Your task to perform on an android device: Search for "corsair k70" on amazon.com, select the first entry, add it to the cart, then select checkout. Image 0: 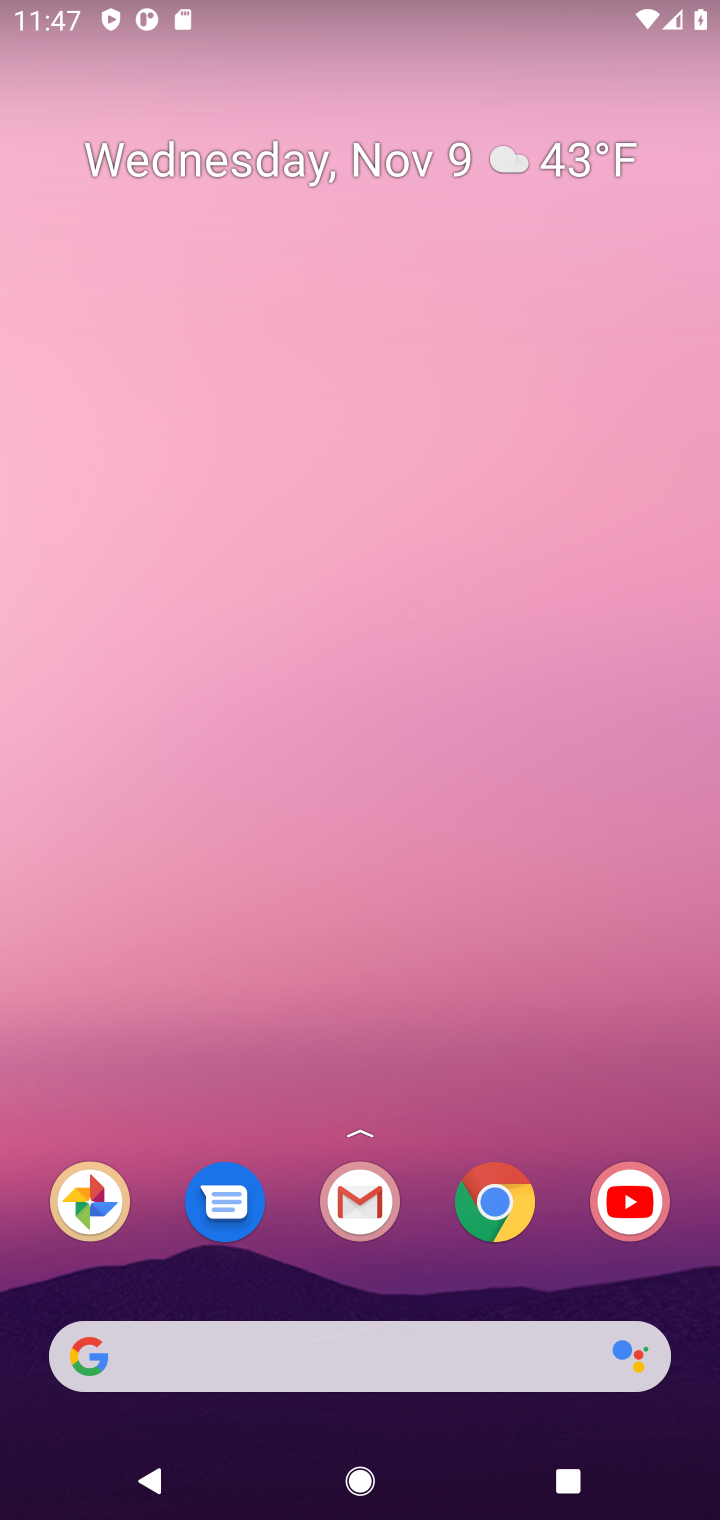
Step 0: click (483, 1194)
Your task to perform on an android device: Search for "corsair k70" on amazon.com, select the first entry, add it to the cart, then select checkout. Image 1: 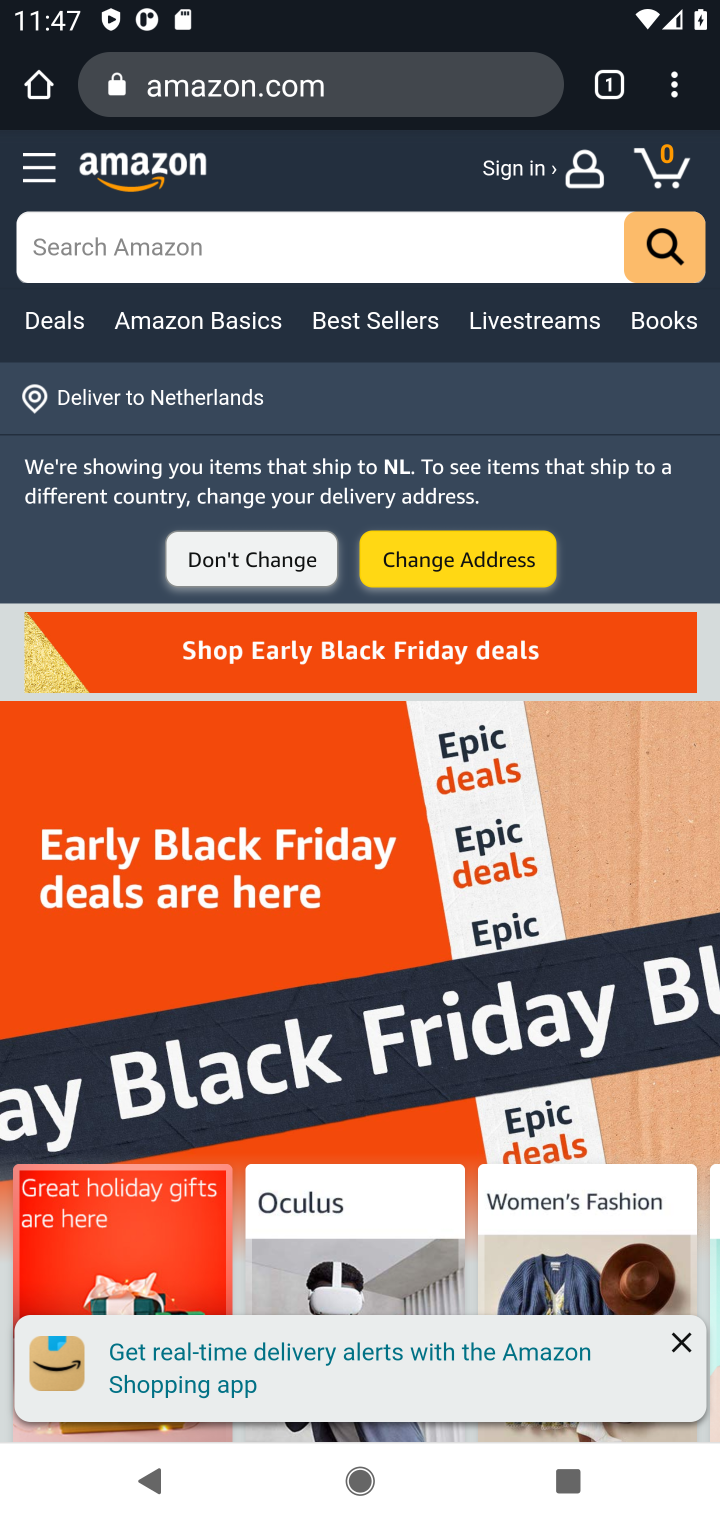
Step 1: click (389, 259)
Your task to perform on an android device: Search for "corsair k70" on amazon.com, select the first entry, add it to the cart, then select checkout. Image 2: 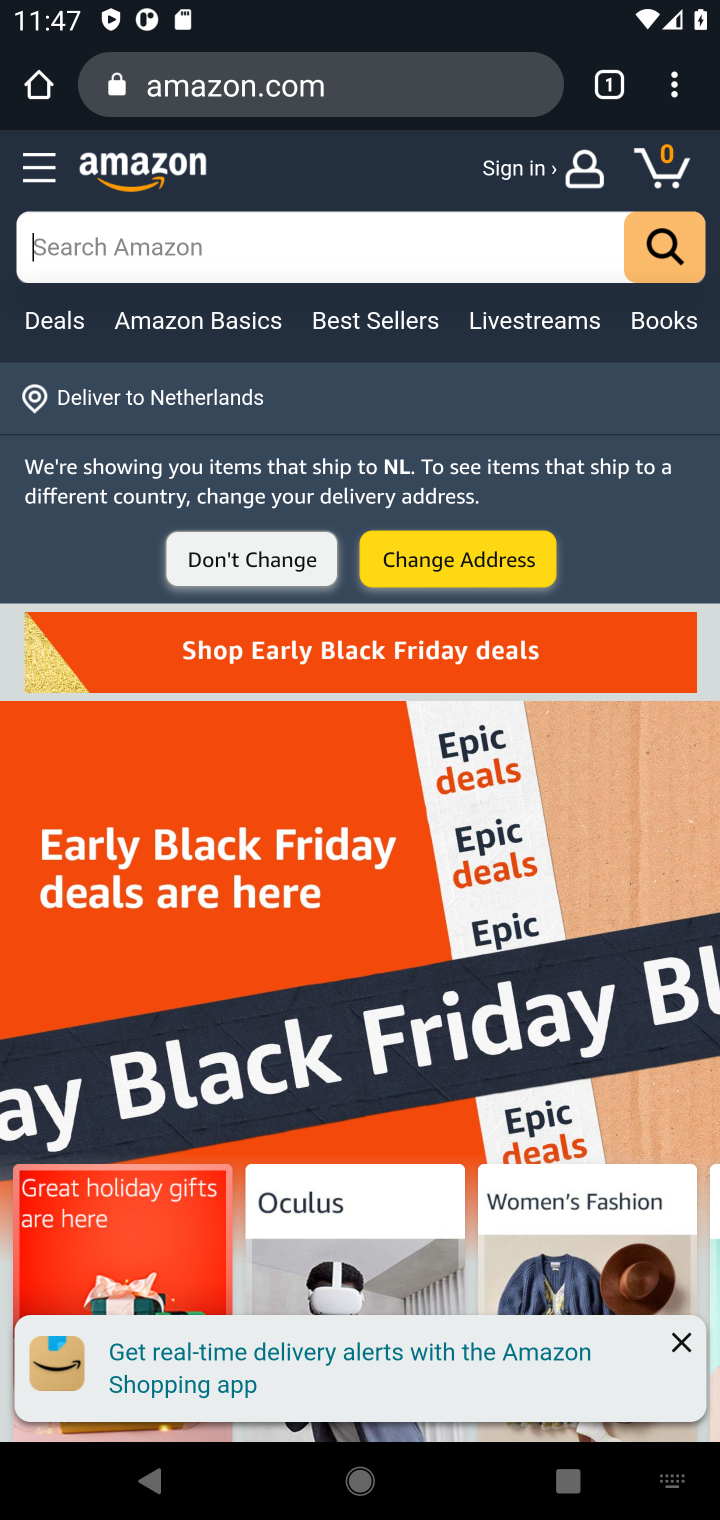
Step 2: press enter
Your task to perform on an android device: Search for "corsair k70" on amazon.com, select the first entry, add it to the cart, then select checkout. Image 3: 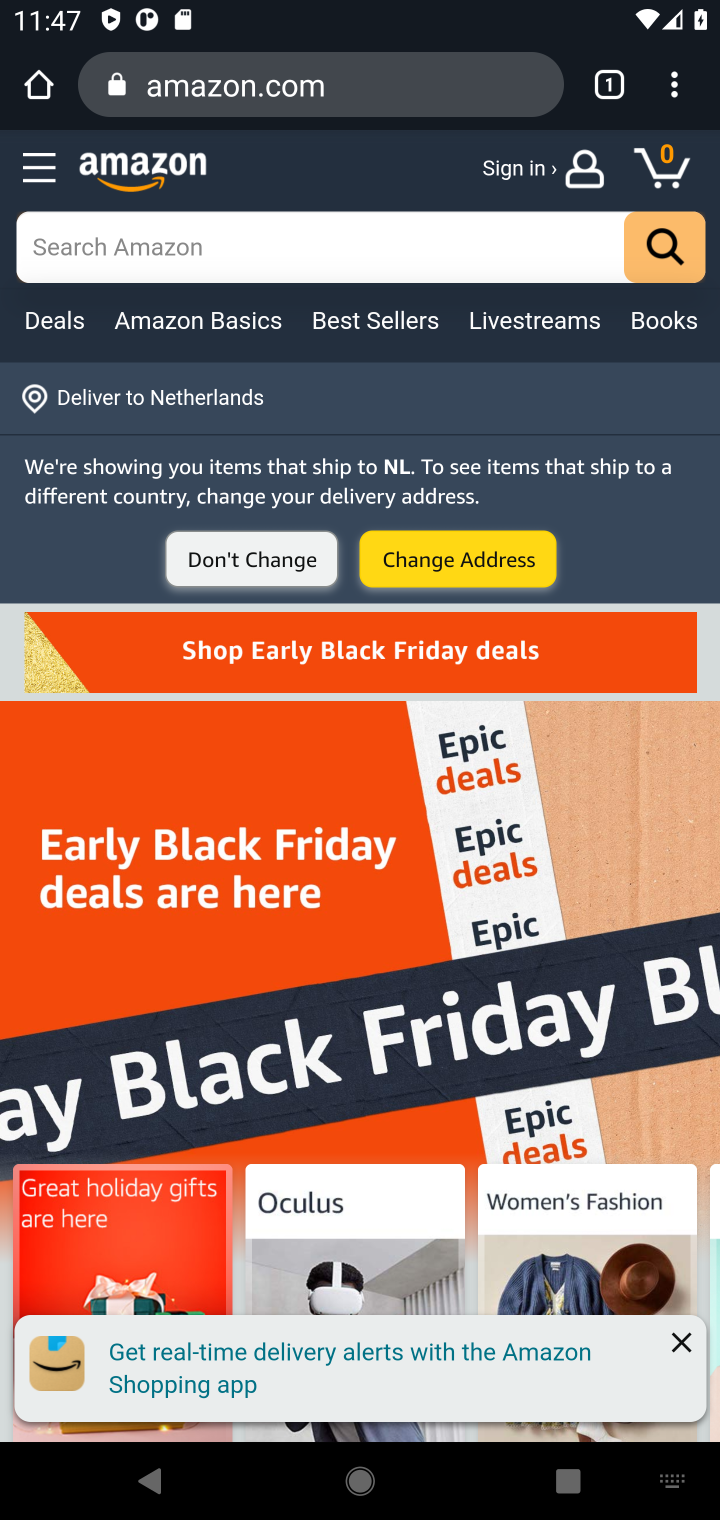
Step 3: type "corsair k70"
Your task to perform on an android device: Search for "corsair k70" on amazon.com, select the first entry, add it to the cart, then select checkout. Image 4: 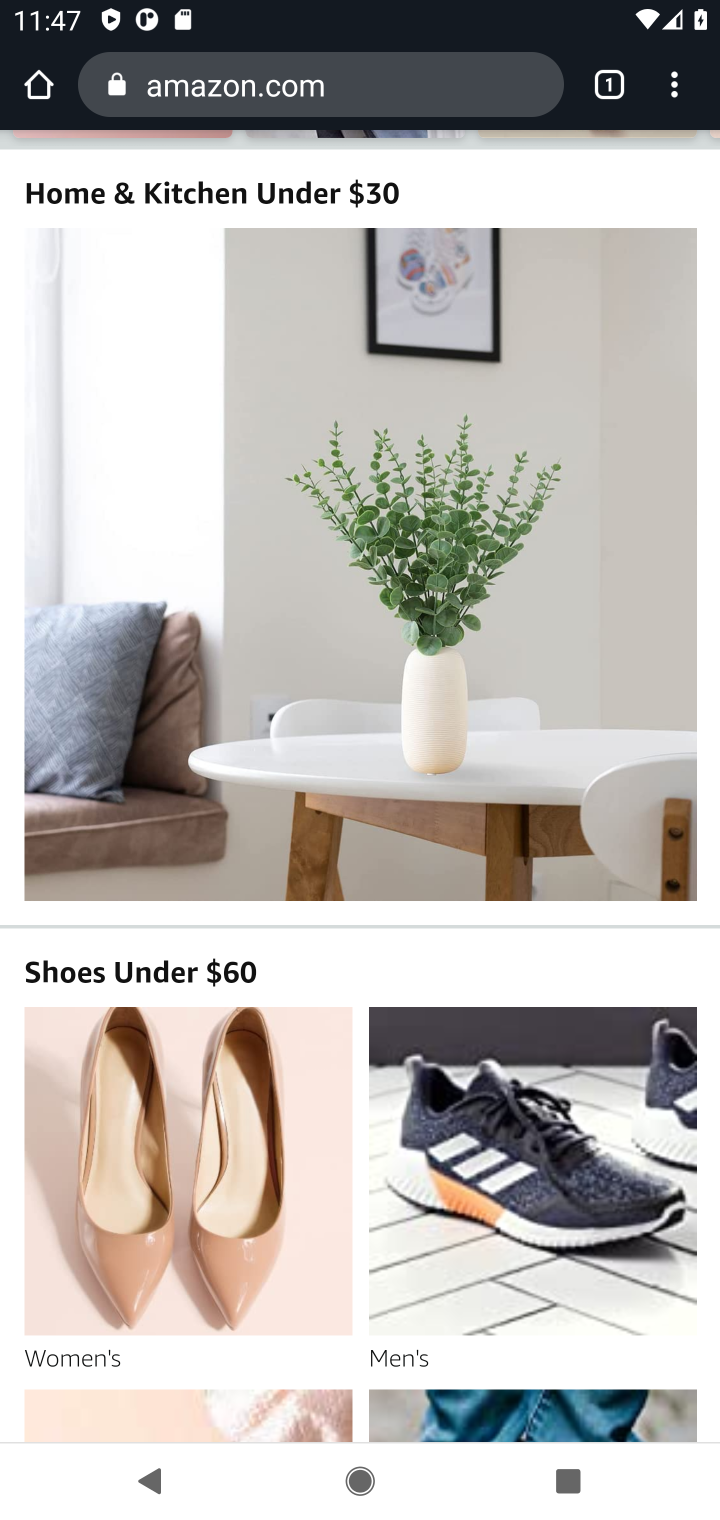
Step 4: click (578, 1005)
Your task to perform on an android device: Search for "corsair k70" on amazon.com, select the first entry, add it to the cart, then select checkout. Image 5: 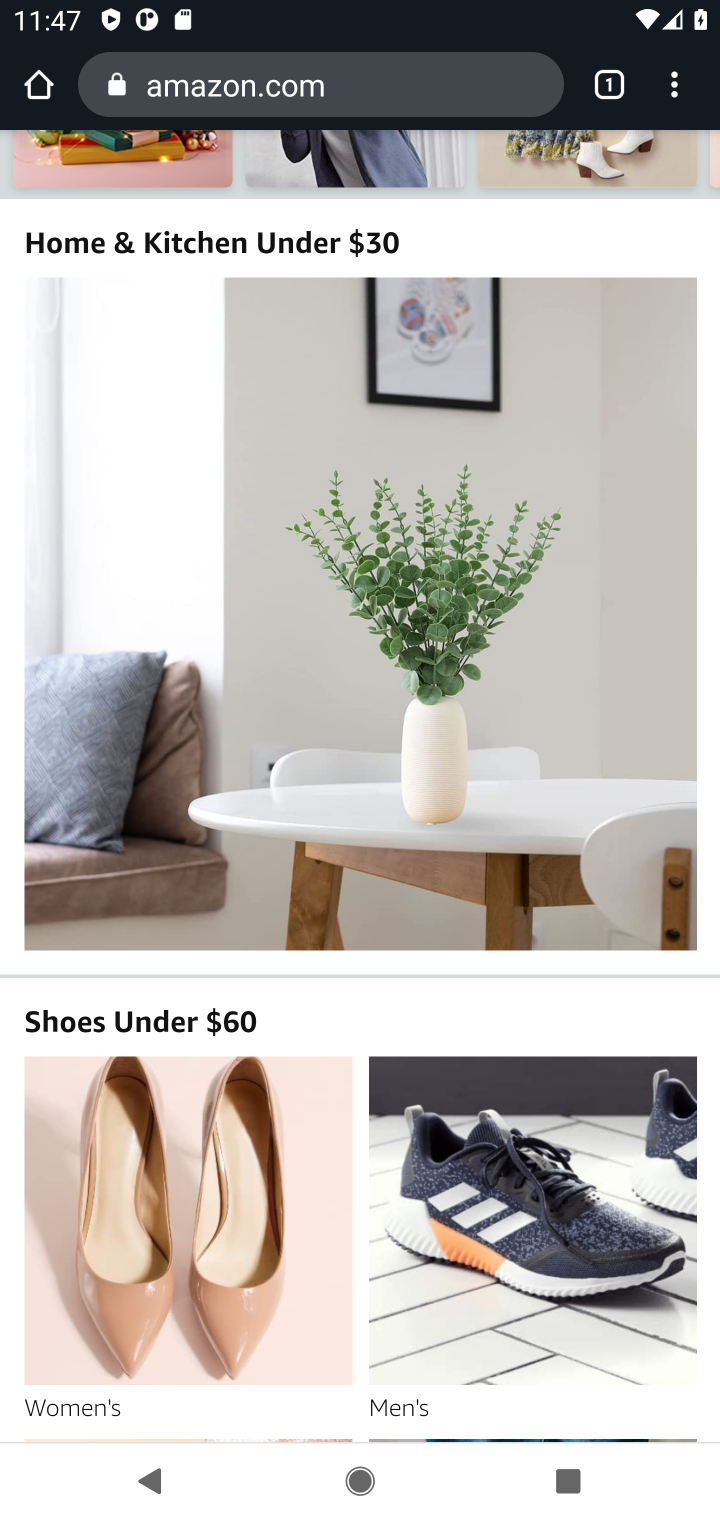
Step 5: drag from (597, 698) to (658, 1062)
Your task to perform on an android device: Search for "corsair k70" on amazon.com, select the first entry, add it to the cart, then select checkout. Image 6: 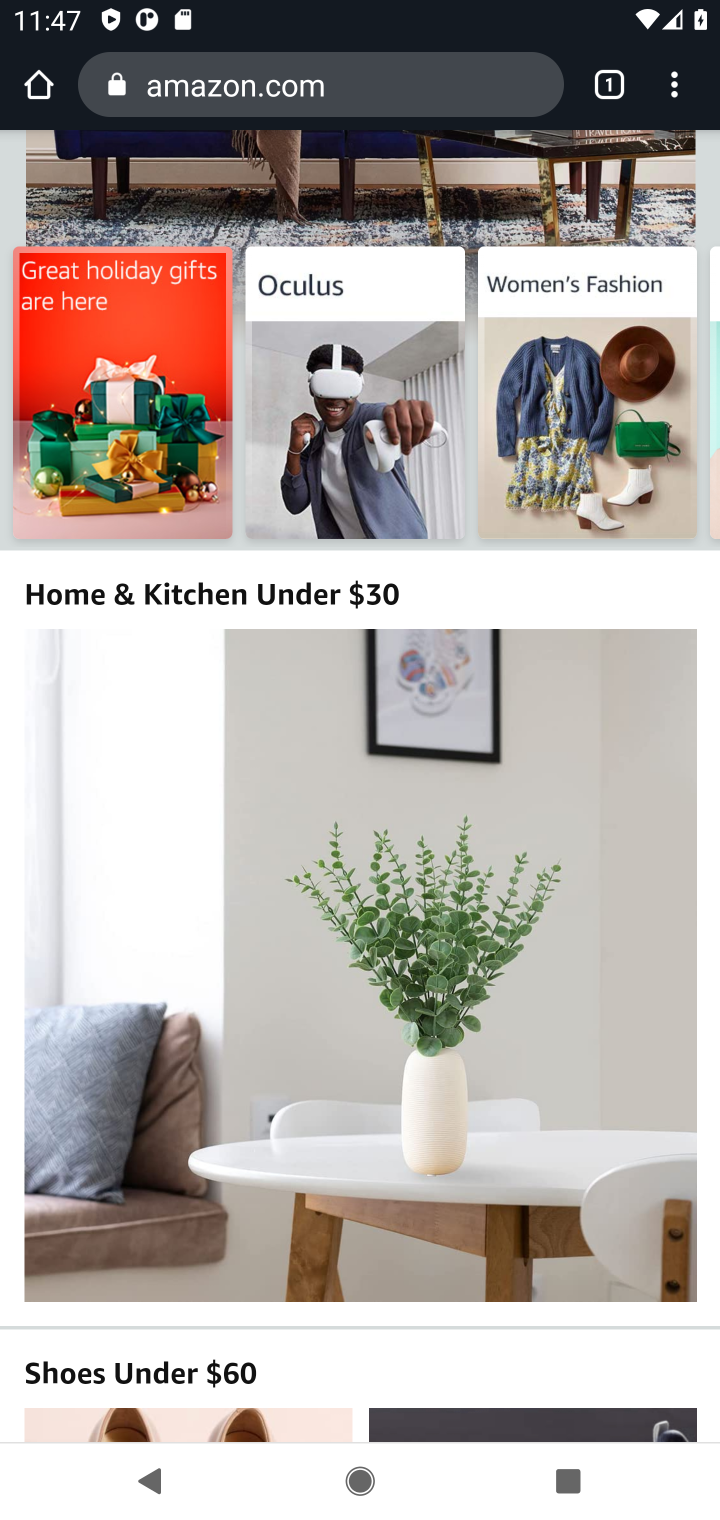
Step 6: drag from (478, 741) to (501, 1155)
Your task to perform on an android device: Search for "corsair k70" on amazon.com, select the first entry, add it to the cart, then select checkout. Image 7: 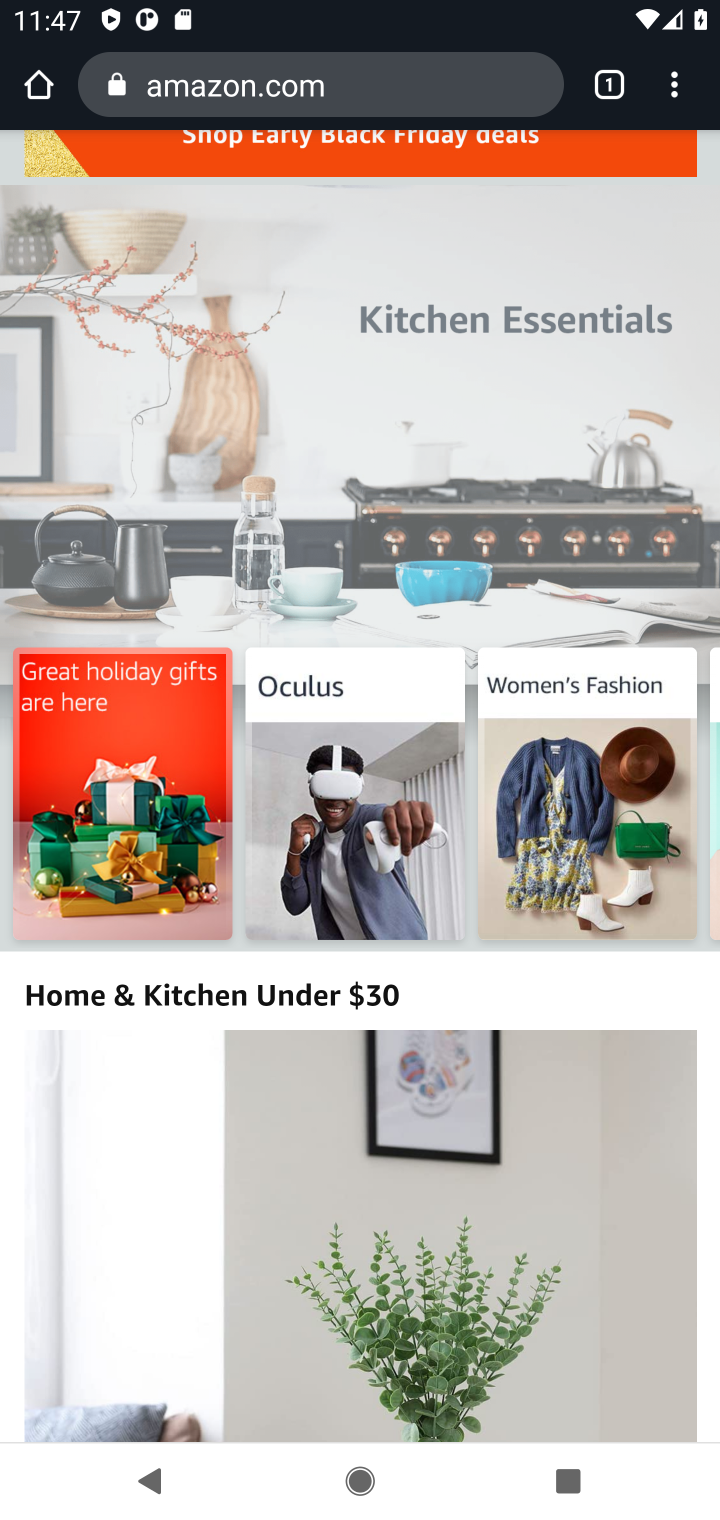
Step 7: drag from (524, 182) to (489, 1216)
Your task to perform on an android device: Search for "corsair k70" on amazon.com, select the first entry, add it to the cart, then select checkout. Image 8: 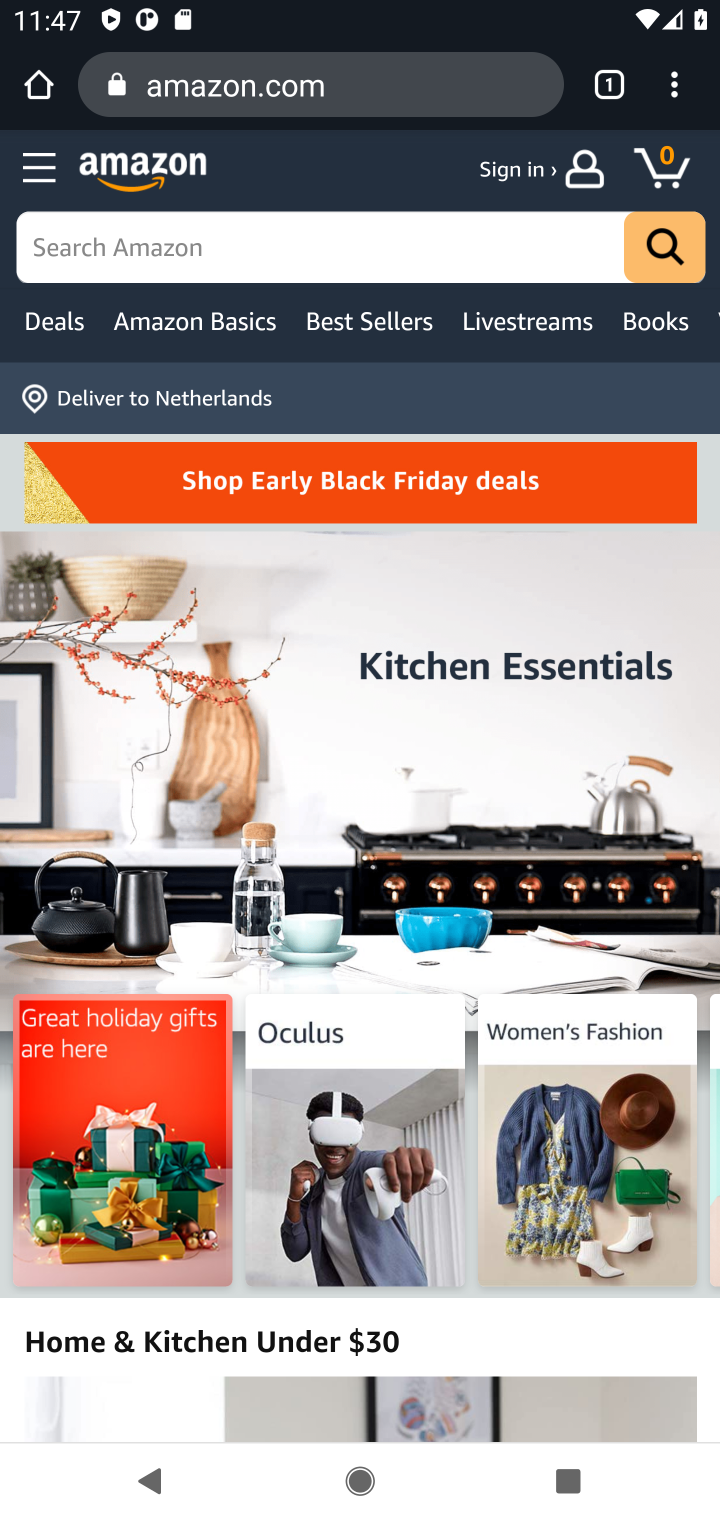
Step 8: click (417, 260)
Your task to perform on an android device: Search for "corsair k70" on amazon.com, select the first entry, add it to the cart, then select checkout. Image 9: 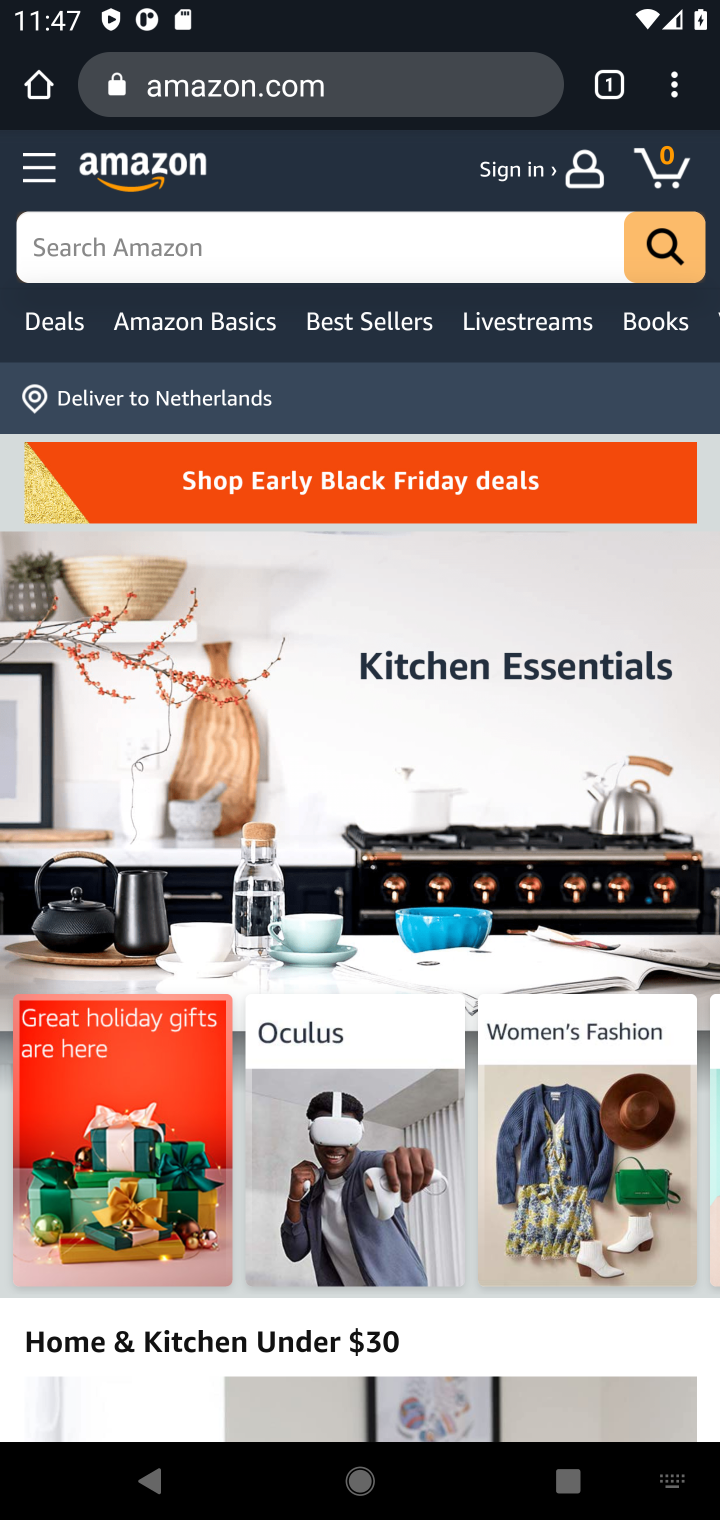
Step 9: press enter
Your task to perform on an android device: Search for "corsair k70" on amazon.com, select the first entry, add it to the cart, then select checkout. Image 10: 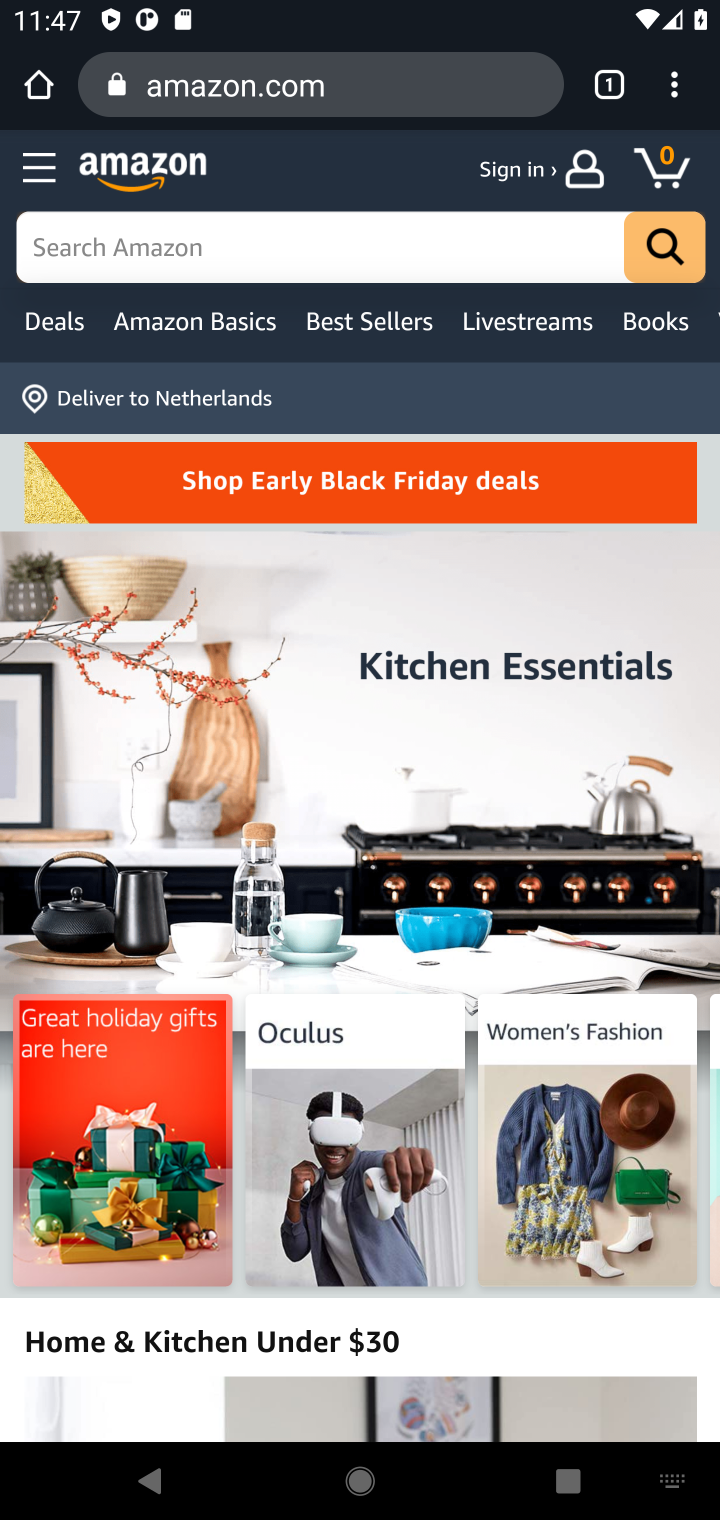
Step 10: type "corsair k70"
Your task to perform on an android device: Search for "corsair k70" on amazon.com, select the first entry, add it to the cart, then select checkout. Image 11: 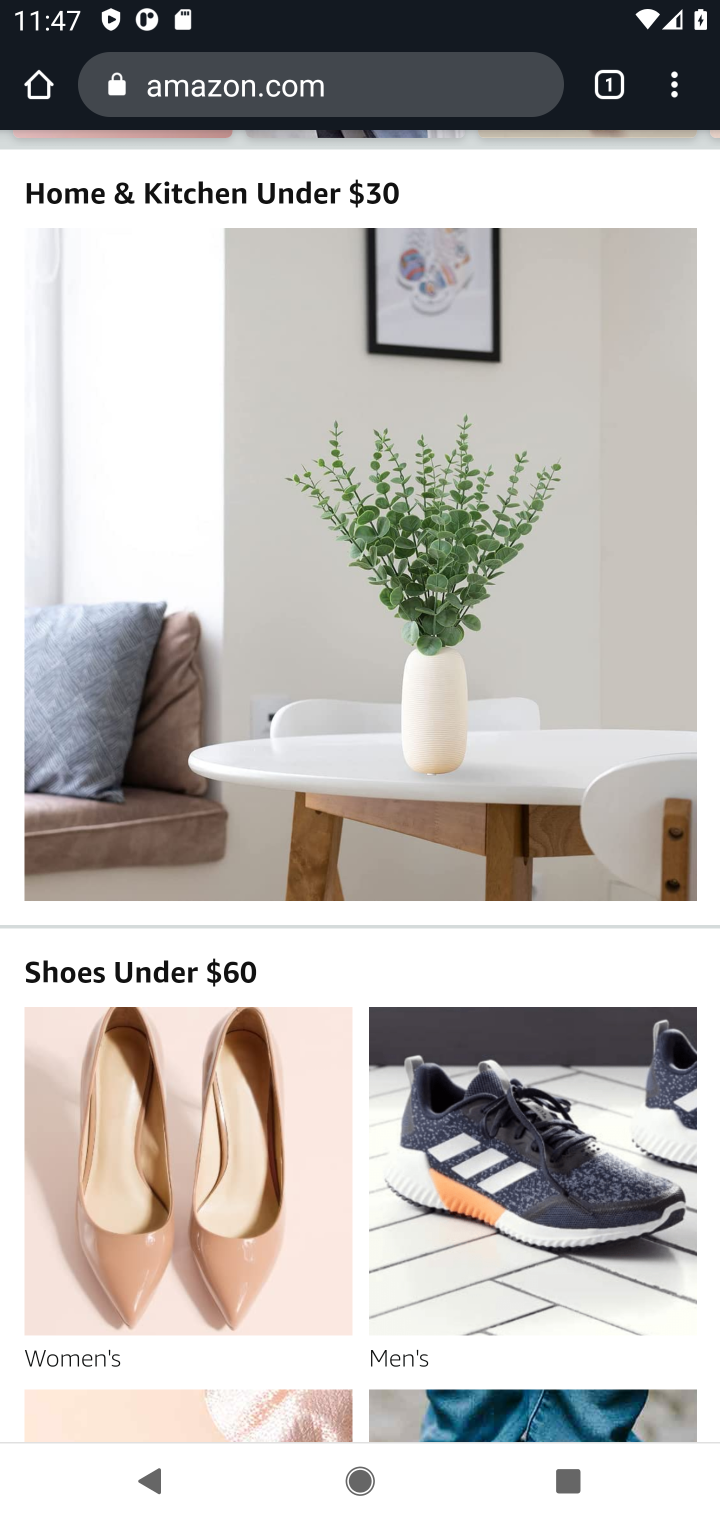
Step 11: drag from (447, 1213) to (447, 1334)
Your task to perform on an android device: Search for "corsair k70" on amazon.com, select the first entry, add it to the cart, then select checkout. Image 12: 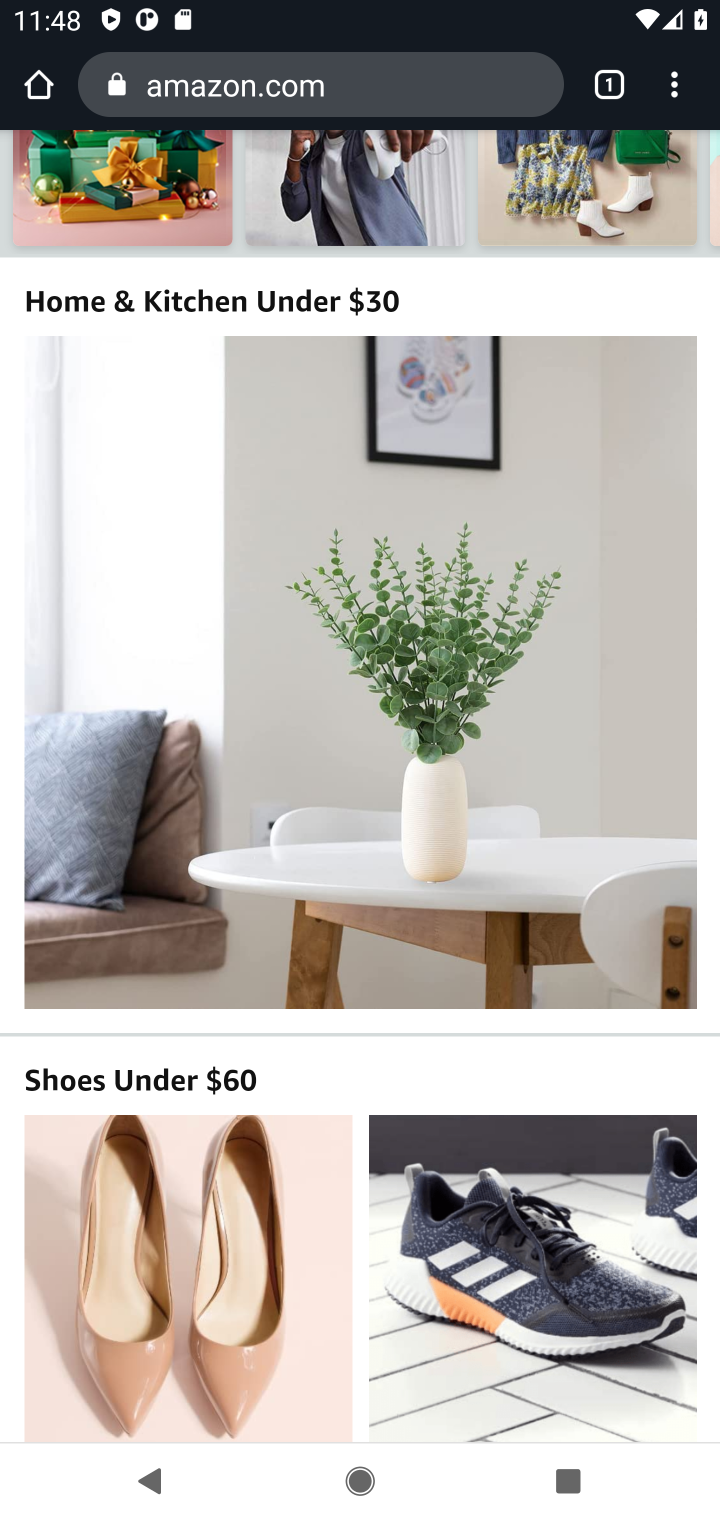
Step 12: drag from (290, 685) to (262, 1224)
Your task to perform on an android device: Search for "corsair k70" on amazon.com, select the first entry, add it to the cart, then select checkout. Image 13: 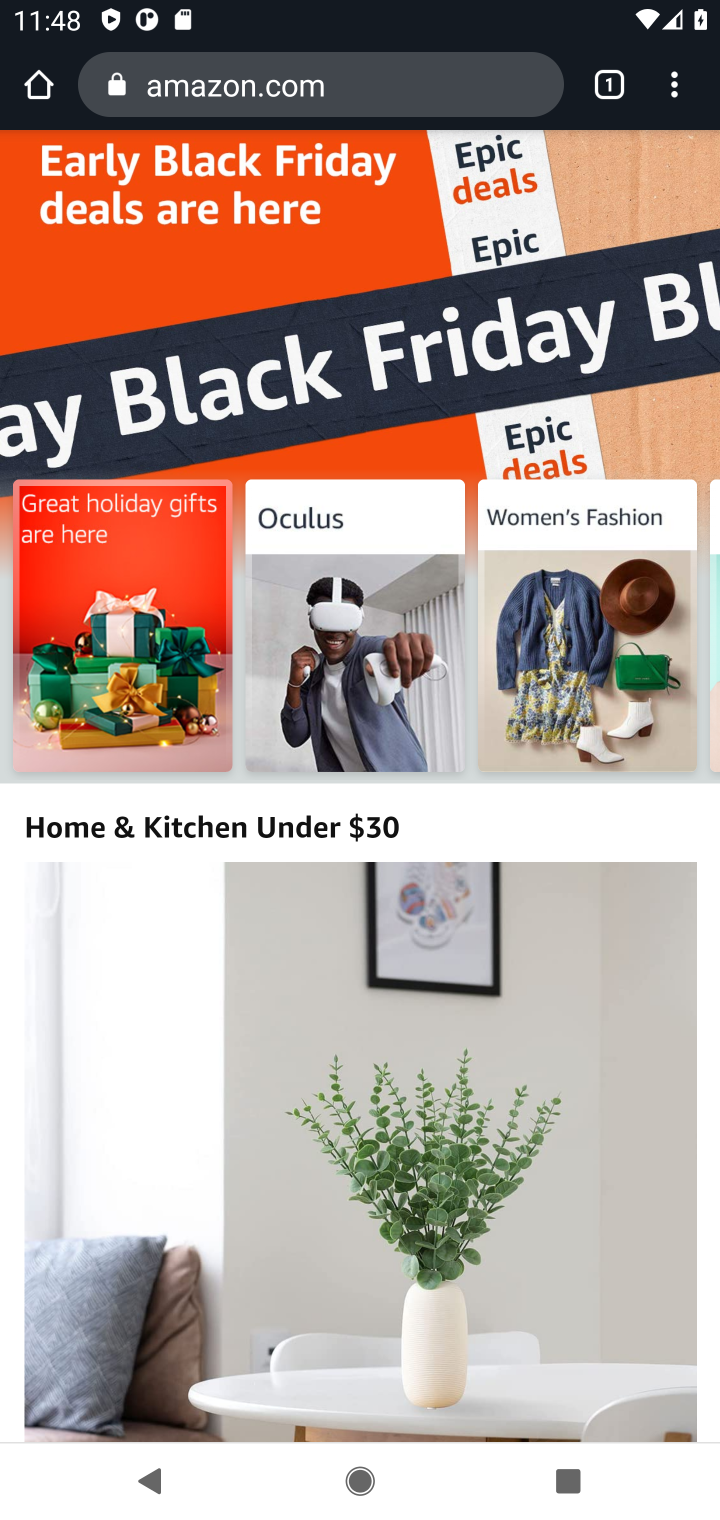
Step 13: drag from (373, 1028) to (347, 1127)
Your task to perform on an android device: Search for "corsair k70" on amazon.com, select the first entry, add it to the cart, then select checkout. Image 14: 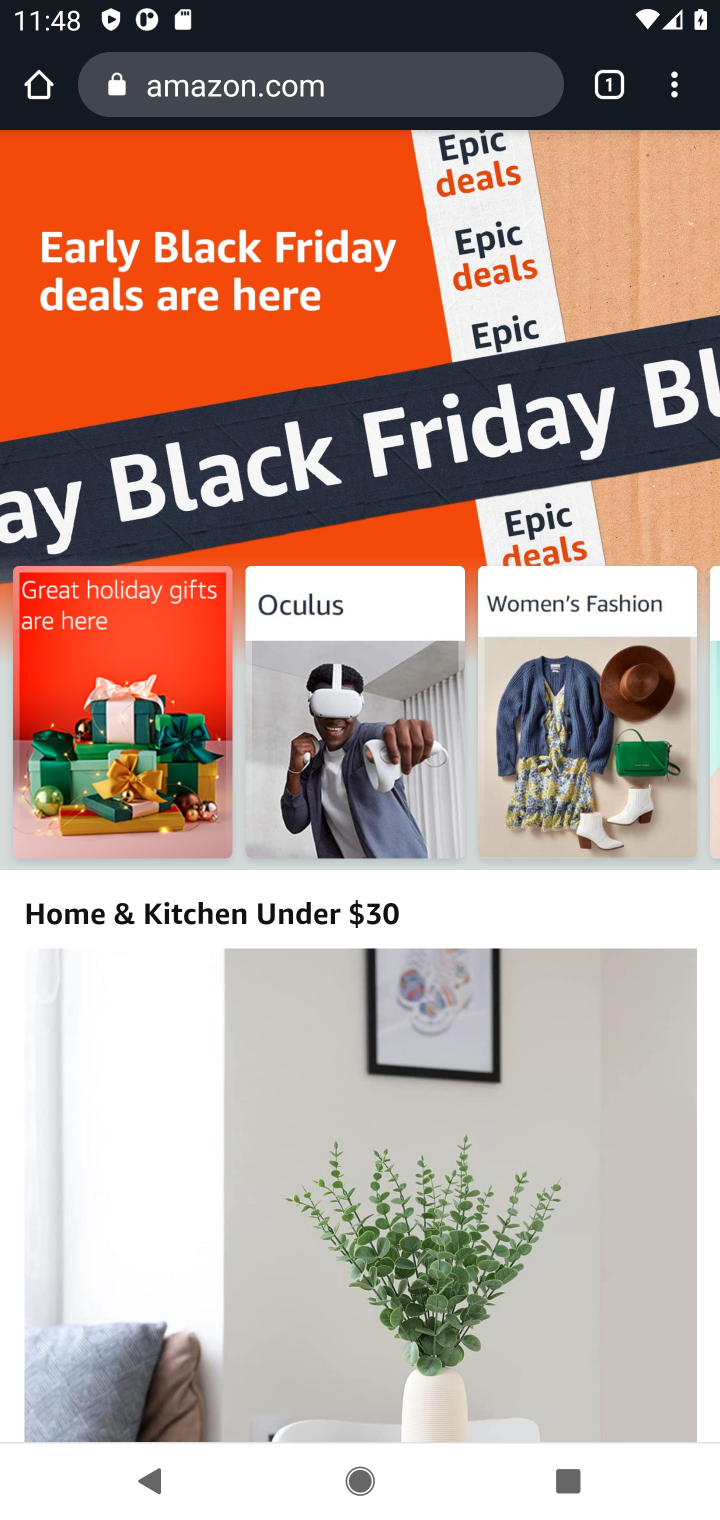
Step 14: drag from (429, 413) to (512, 1198)
Your task to perform on an android device: Search for "corsair k70" on amazon.com, select the first entry, add it to the cart, then select checkout. Image 15: 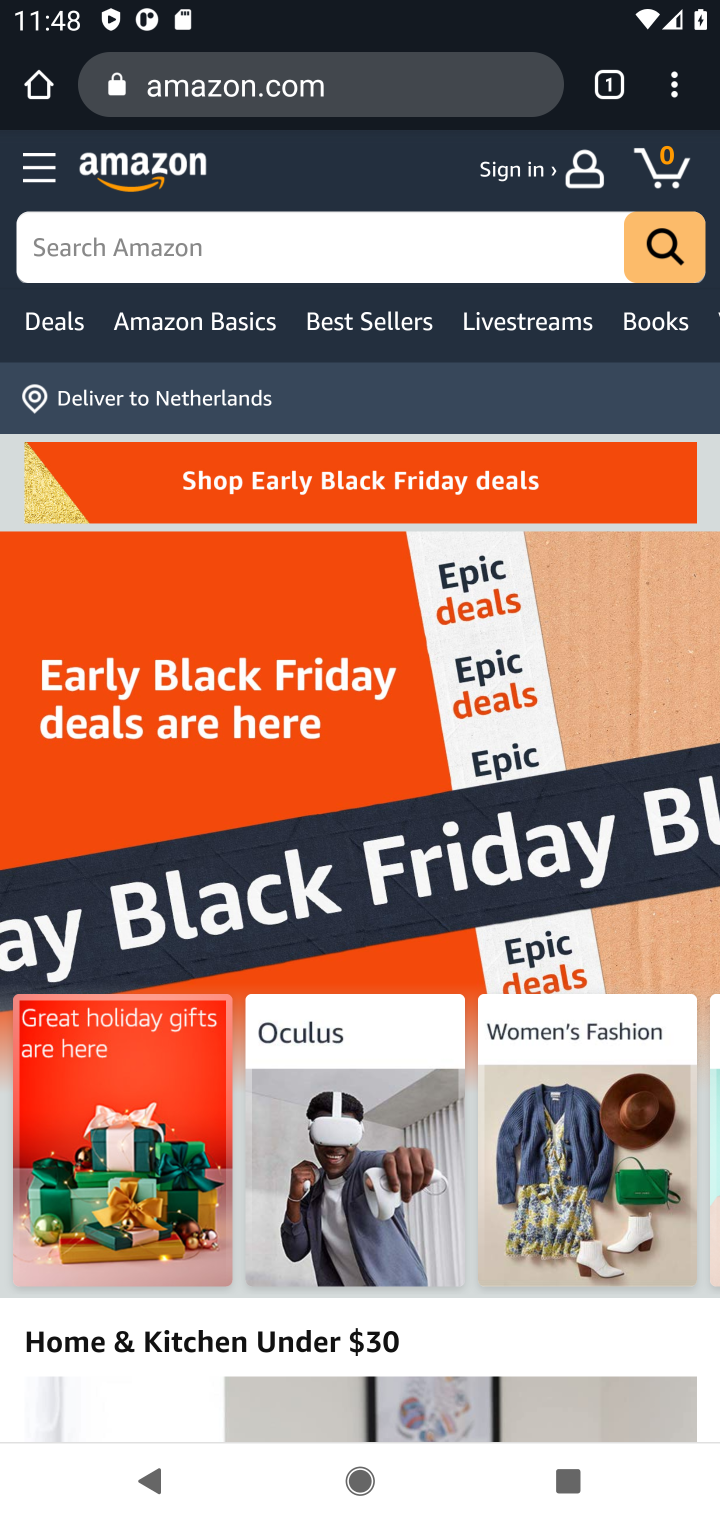
Step 15: click (518, 251)
Your task to perform on an android device: Search for "corsair k70" on amazon.com, select the first entry, add it to the cart, then select checkout. Image 16: 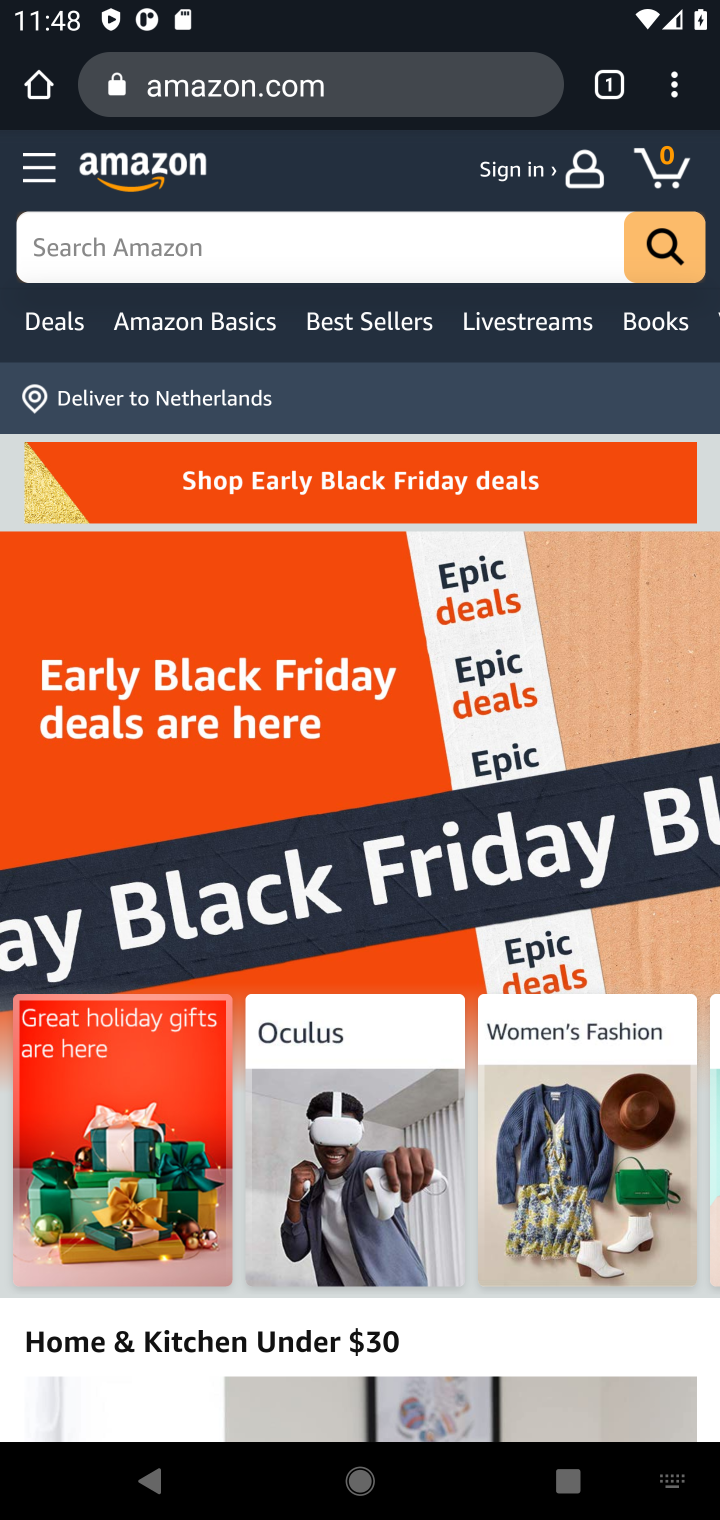
Step 16: press enter
Your task to perform on an android device: Search for "corsair k70" on amazon.com, select the first entry, add it to the cart, then select checkout. Image 17: 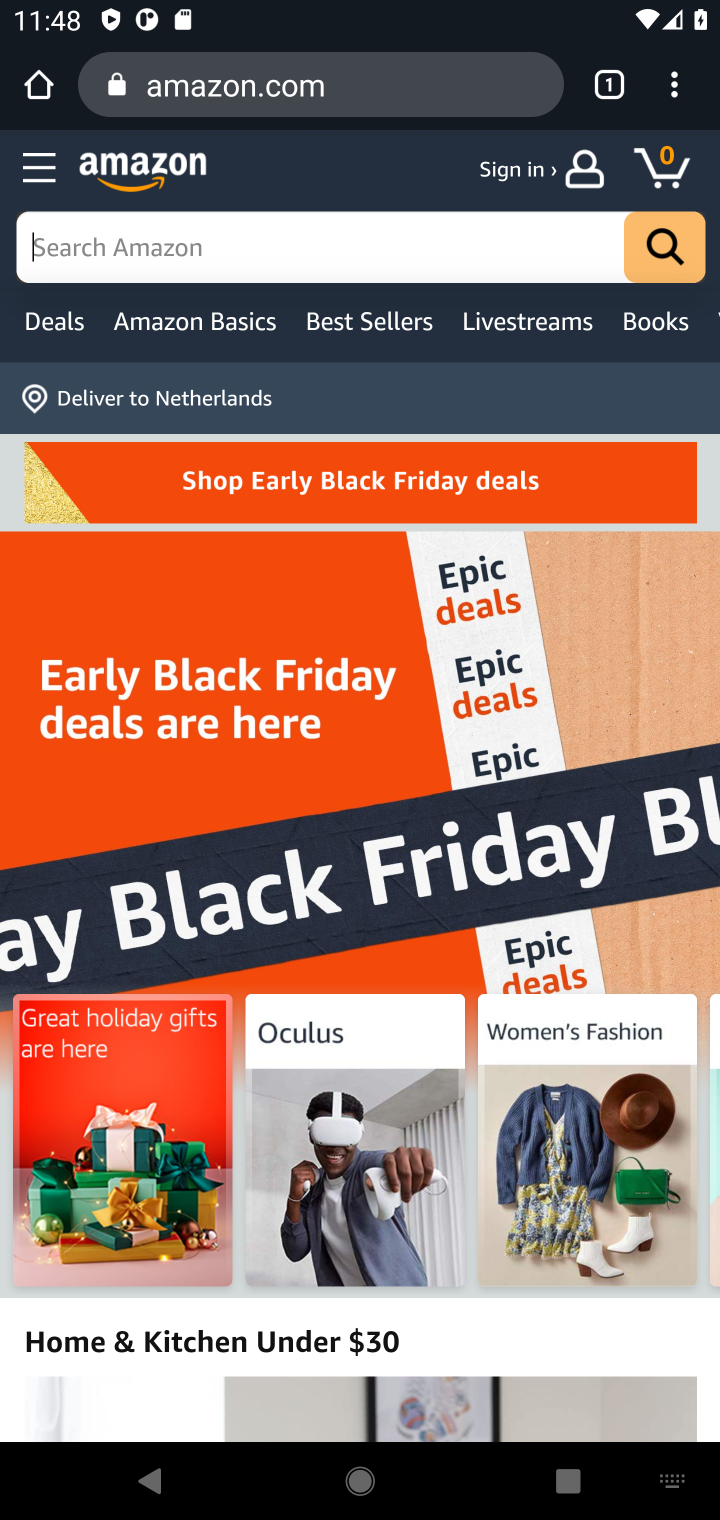
Step 17: type "corsair k70"
Your task to perform on an android device: Search for "corsair k70" on amazon.com, select the first entry, add it to the cart, then select checkout. Image 18: 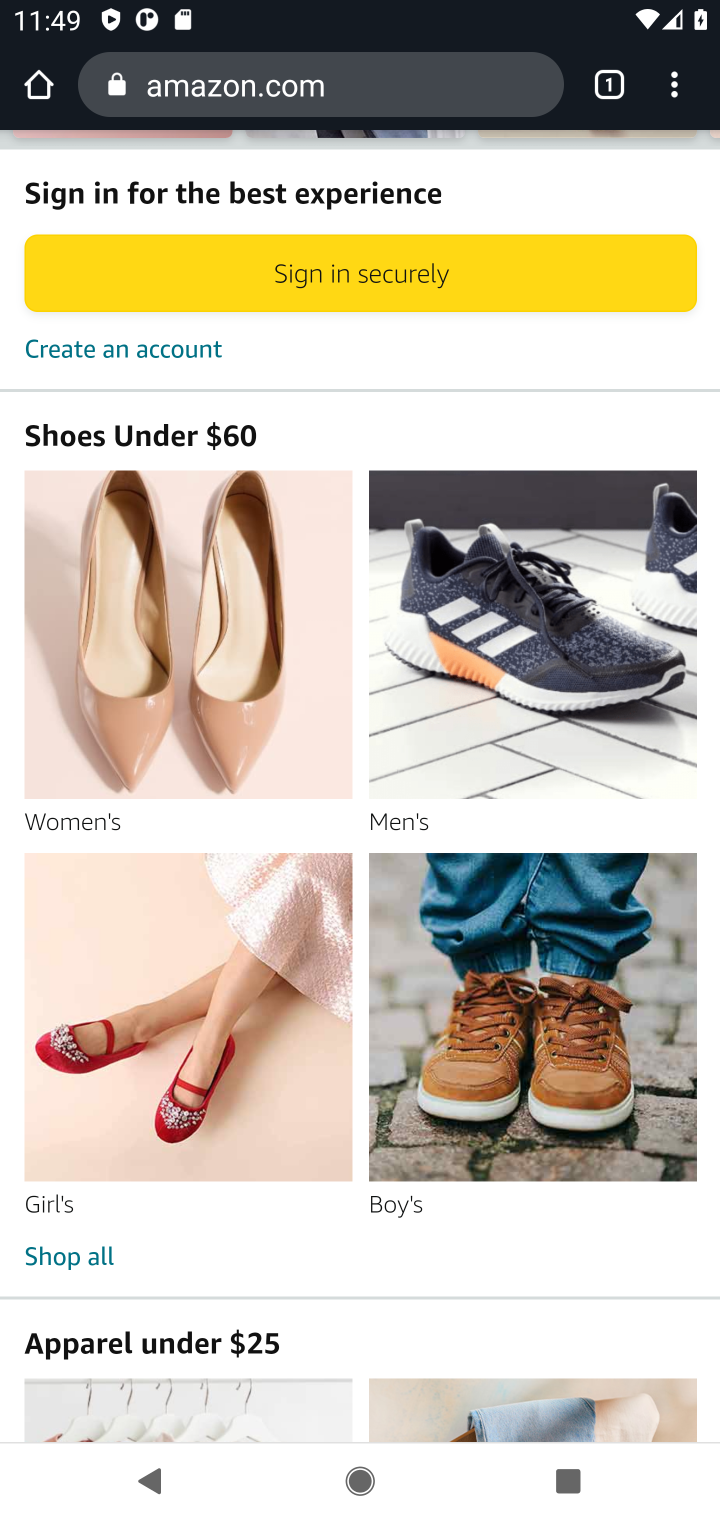
Step 18: drag from (534, 197) to (694, 1337)
Your task to perform on an android device: Search for "corsair k70" on amazon.com, select the first entry, add it to the cart, then select checkout. Image 19: 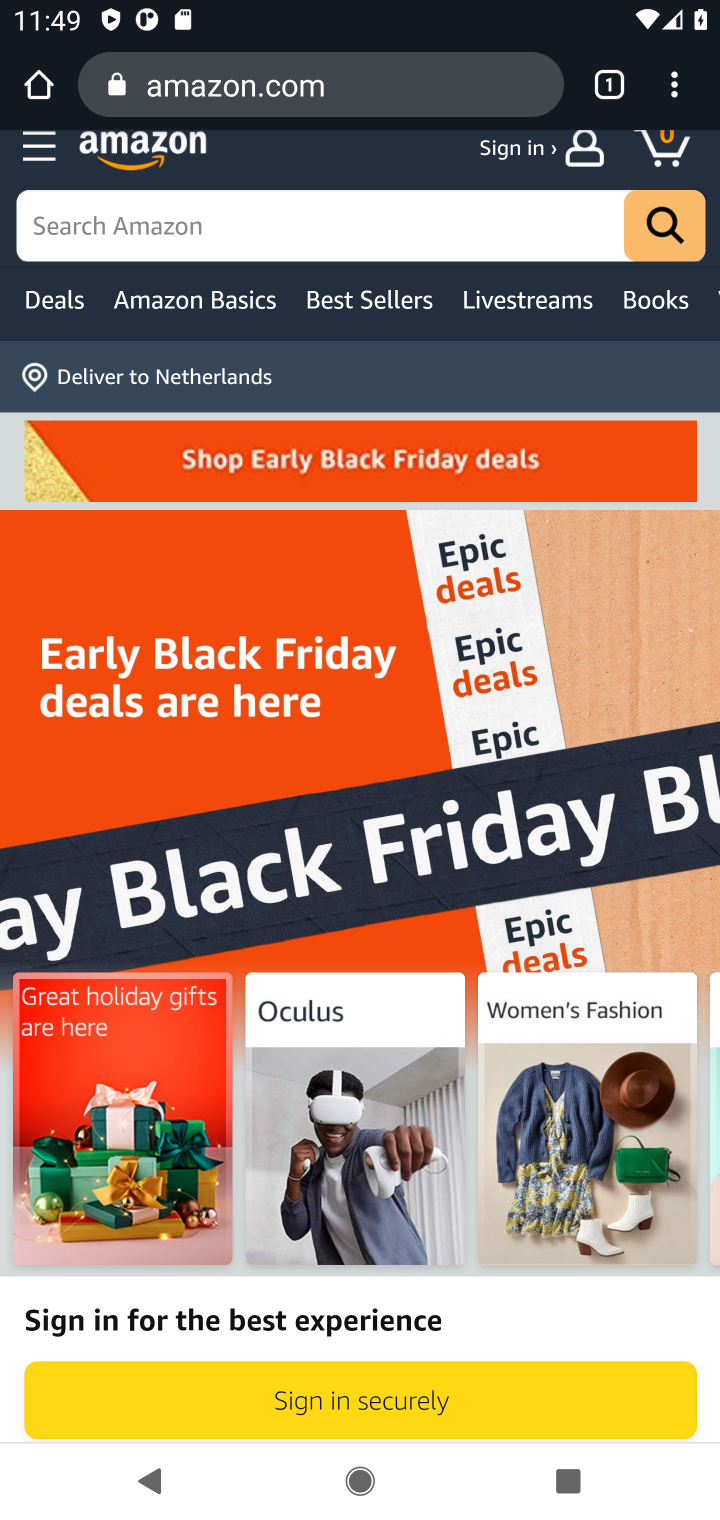
Step 19: click (469, 223)
Your task to perform on an android device: Search for "corsair k70" on amazon.com, select the first entry, add it to the cart, then select checkout. Image 20: 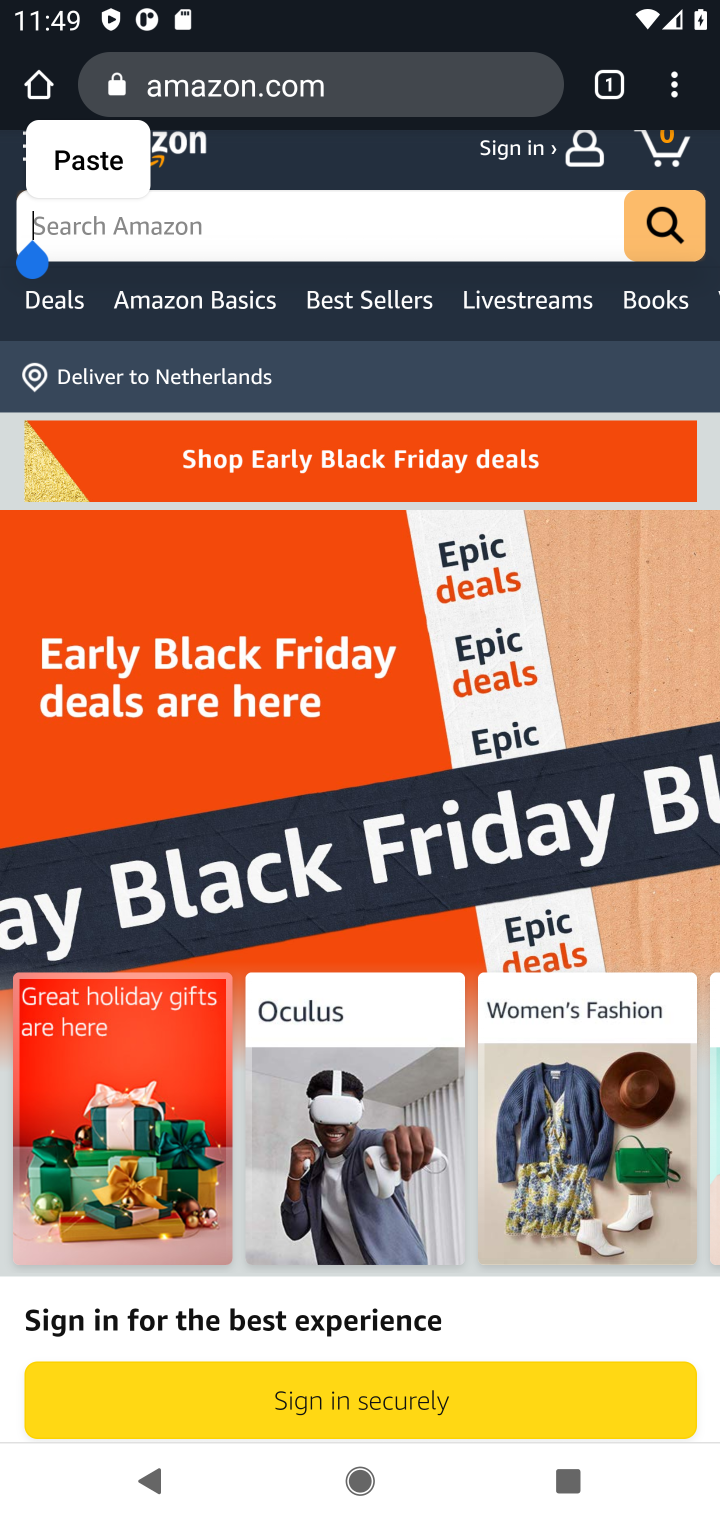
Step 20: type "corsair k70"
Your task to perform on an android device: Search for "corsair k70" on amazon.com, select the first entry, add it to the cart, then select checkout. Image 21: 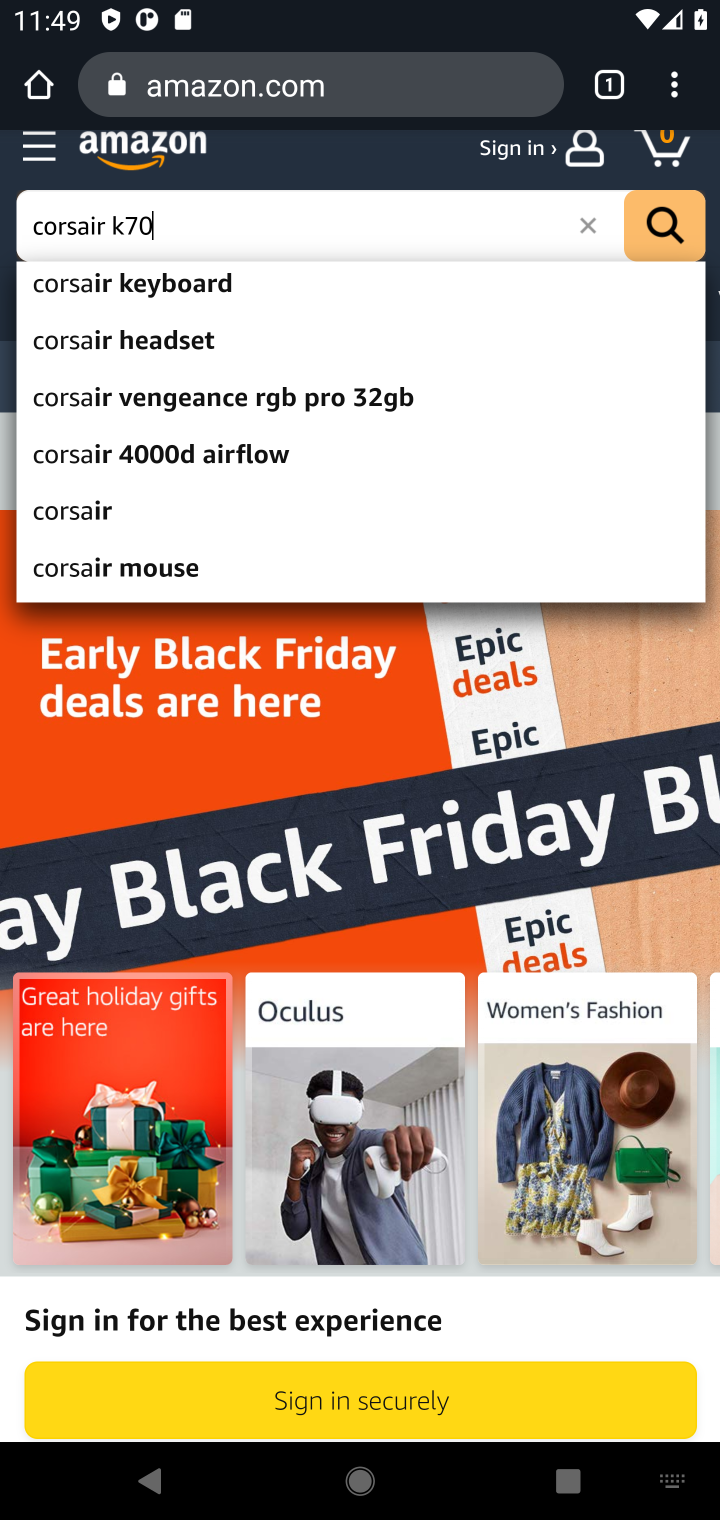
Step 21: press enter
Your task to perform on an android device: Search for "corsair k70" on amazon.com, select the first entry, add it to the cart, then select checkout. Image 22: 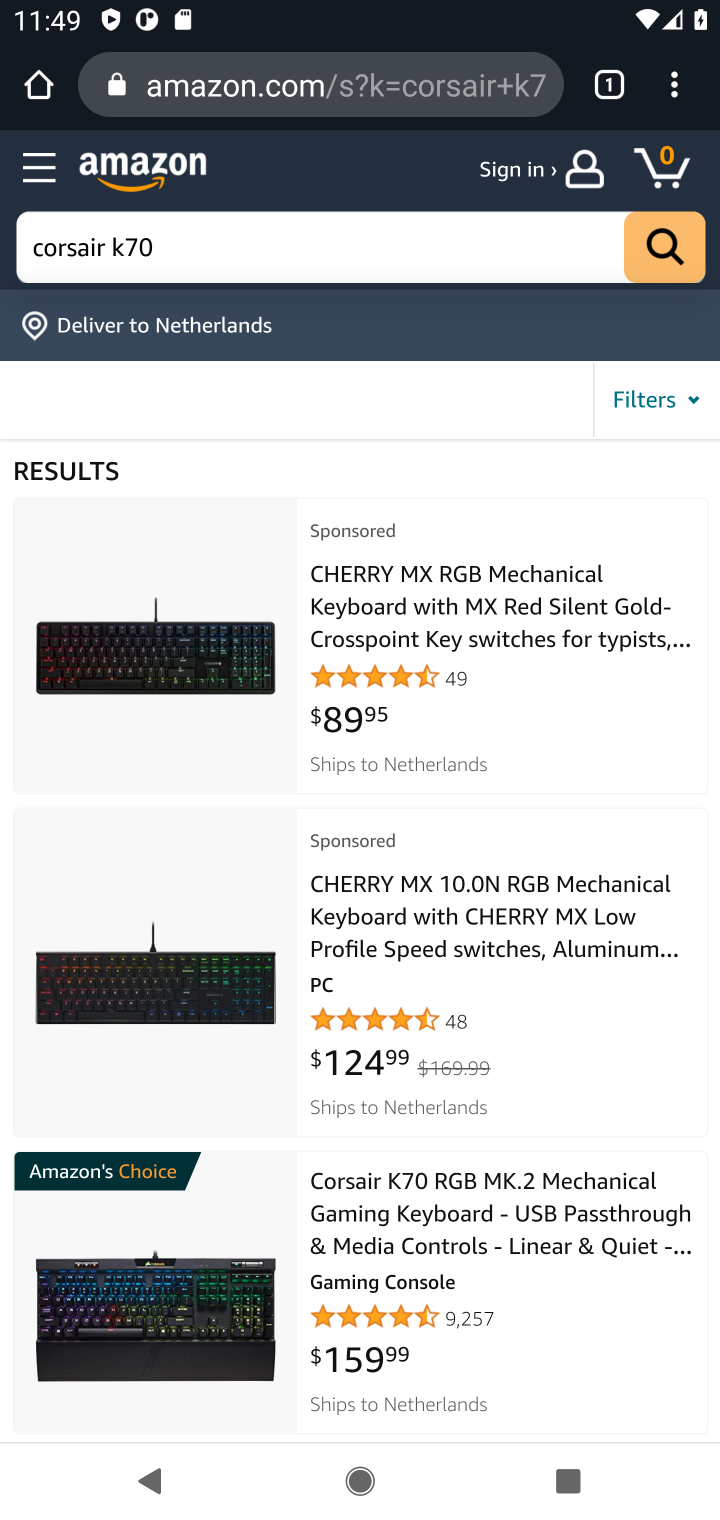
Step 22: click (224, 1291)
Your task to perform on an android device: Search for "corsair k70" on amazon.com, select the first entry, add it to the cart, then select checkout. Image 23: 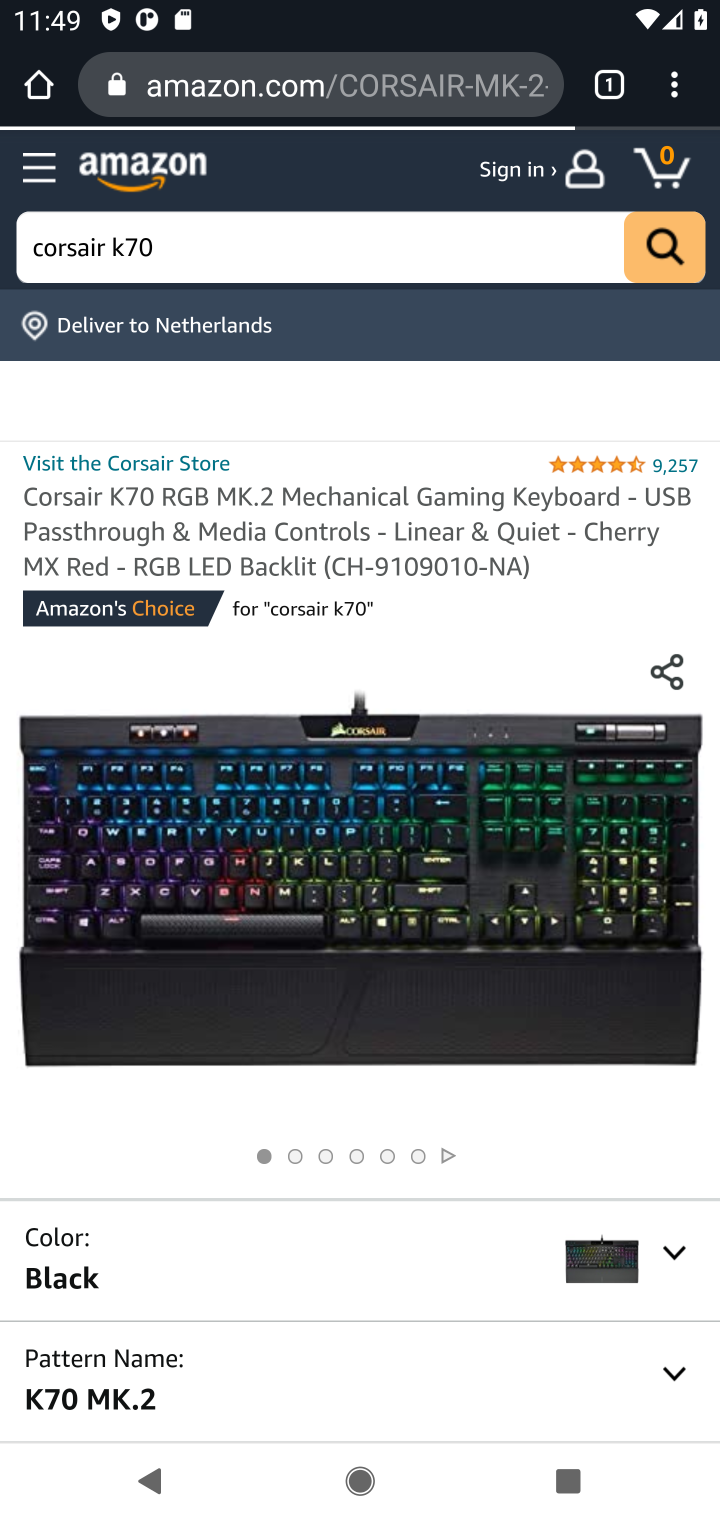
Step 23: drag from (539, 1115) to (570, 304)
Your task to perform on an android device: Search for "corsair k70" on amazon.com, select the first entry, add it to the cart, then select checkout. Image 24: 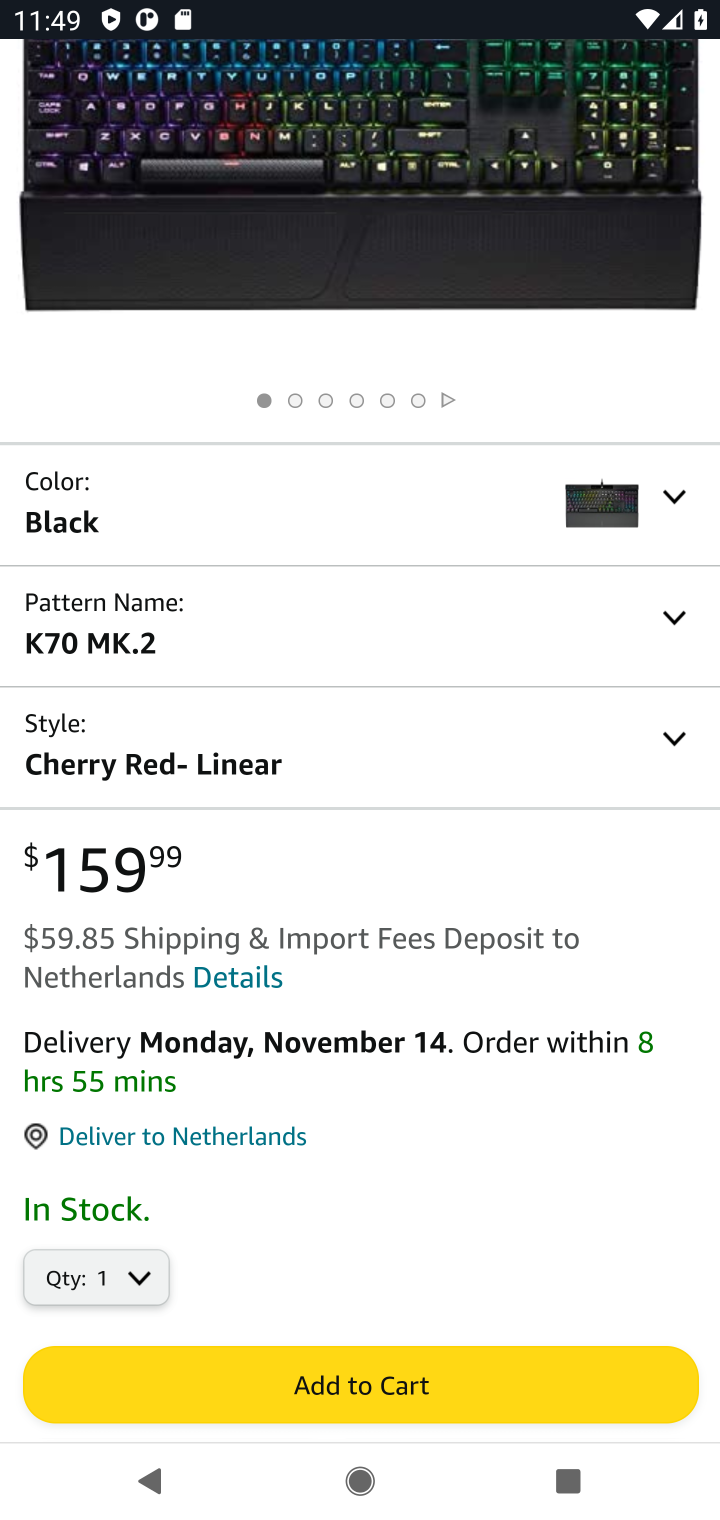
Step 24: drag from (582, 1126) to (608, 487)
Your task to perform on an android device: Search for "corsair k70" on amazon.com, select the first entry, add it to the cart, then select checkout. Image 25: 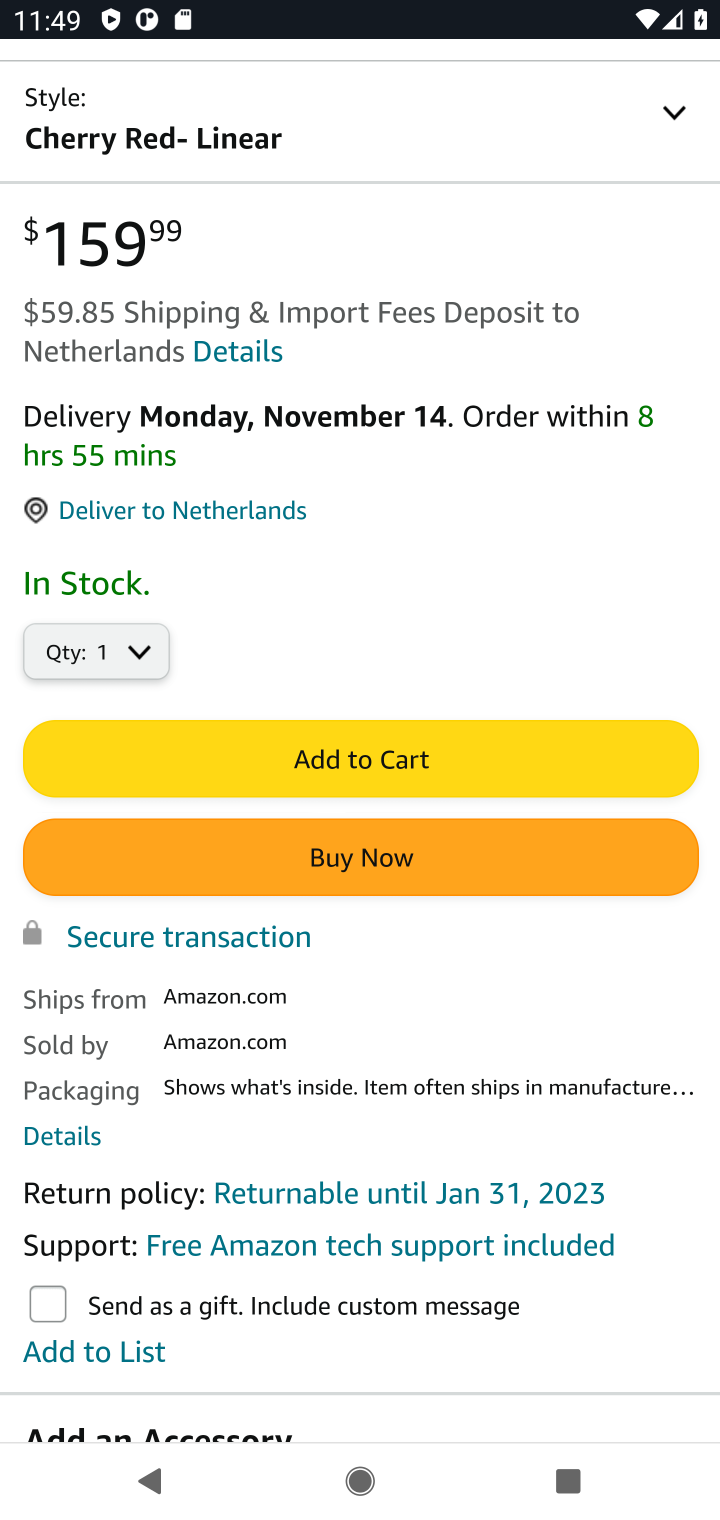
Step 25: click (426, 741)
Your task to perform on an android device: Search for "corsair k70" on amazon.com, select the first entry, add it to the cart, then select checkout. Image 26: 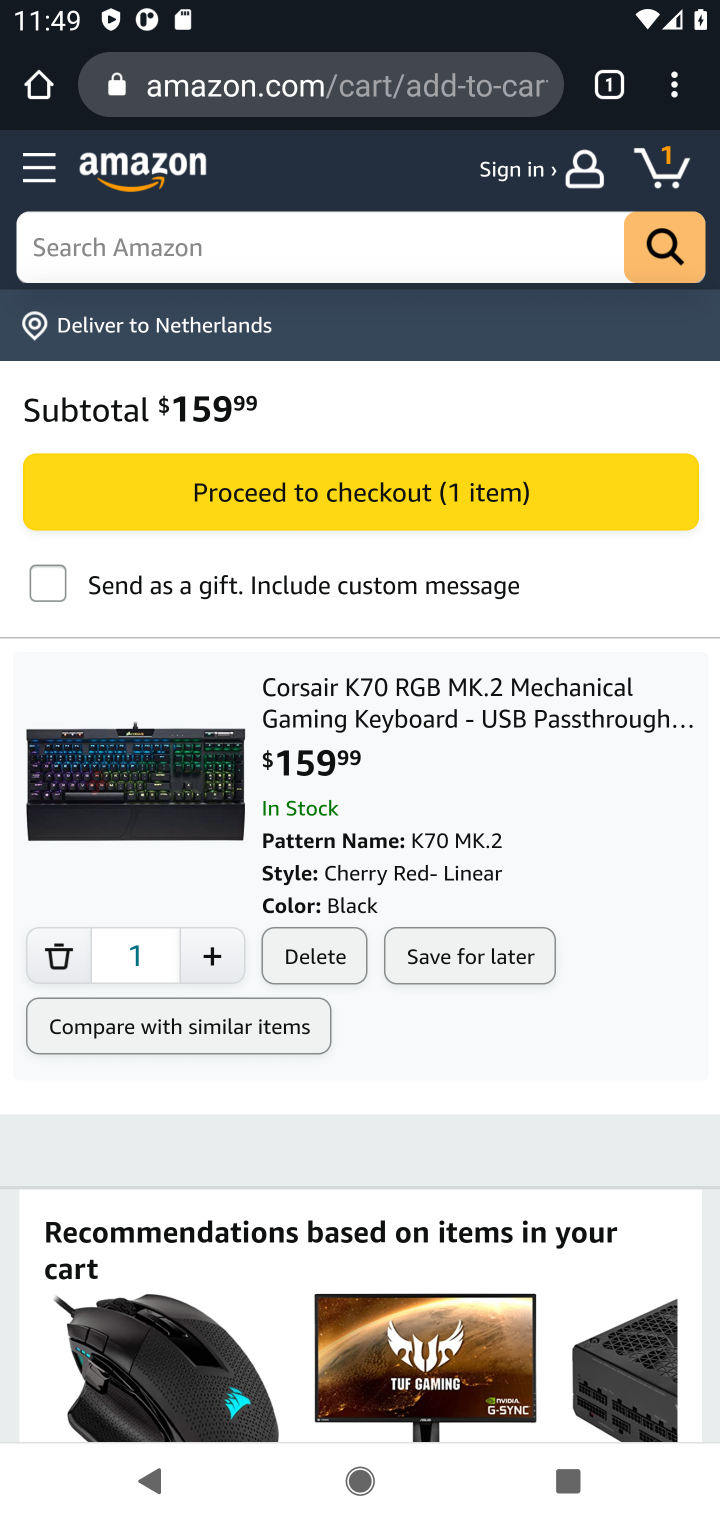
Step 26: click (379, 492)
Your task to perform on an android device: Search for "corsair k70" on amazon.com, select the first entry, add it to the cart, then select checkout. Image 27: 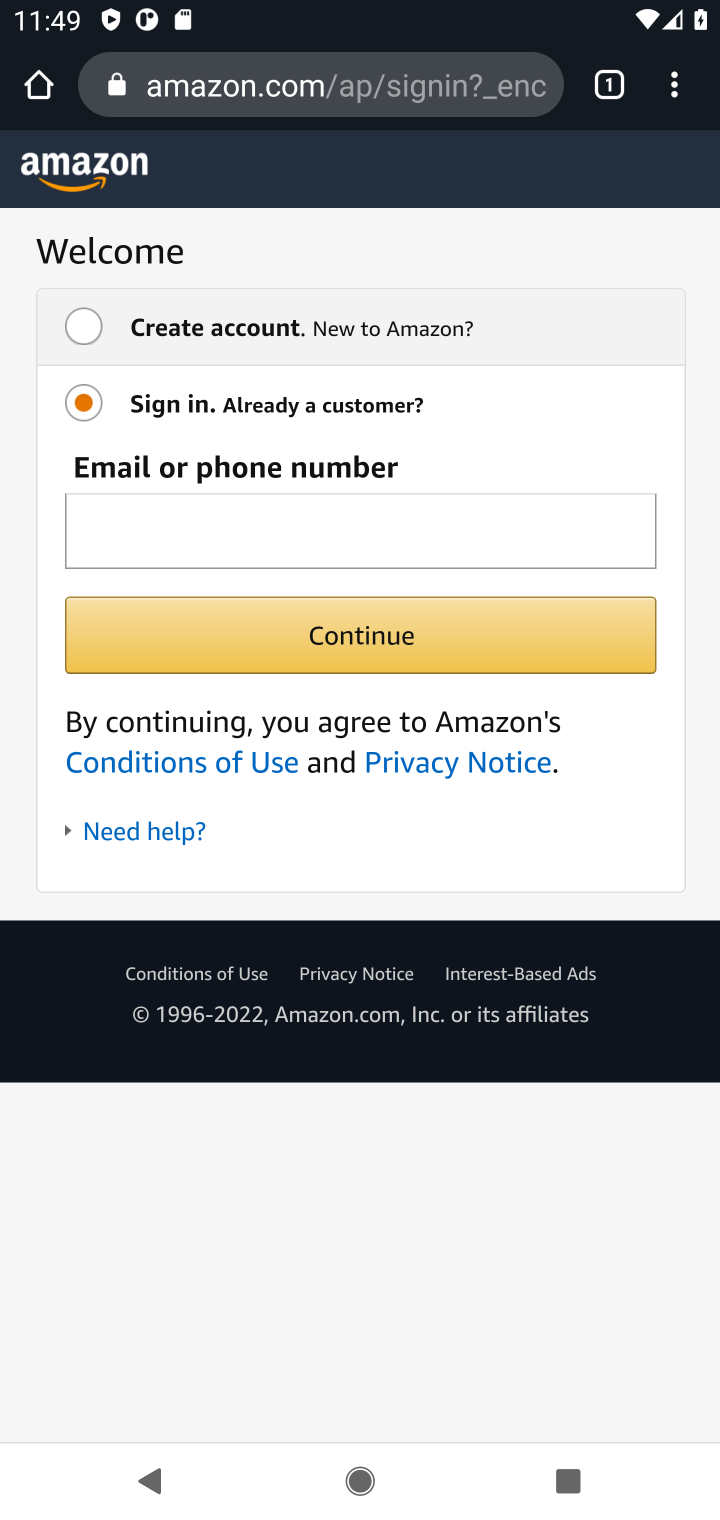
Step 27: task complete